Your task to perform on an android device: Go to notification settings Image 0: 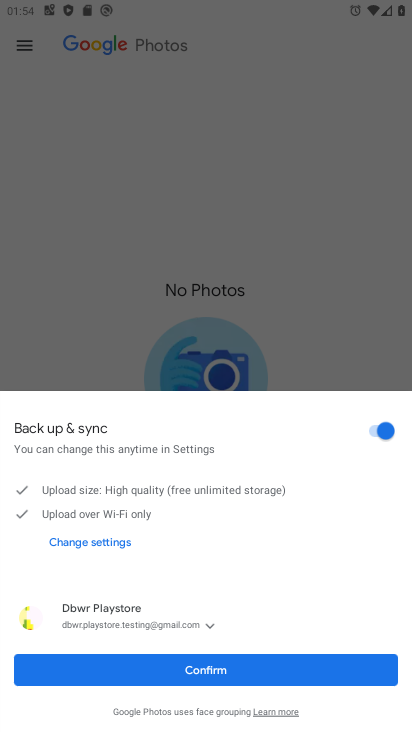
Step 0: press home button
Your task to perform on an android device: Go to notification settings Image 1: 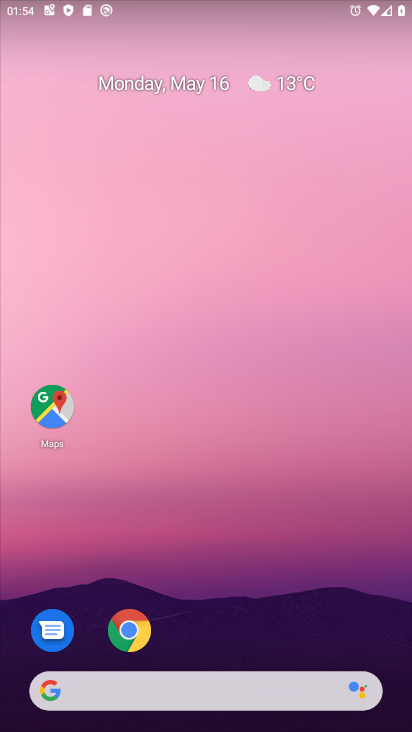
Step 1: drag from (251, 493) to (320, 144)
Your task to perform on an android device: Go to notification settings Image 2: 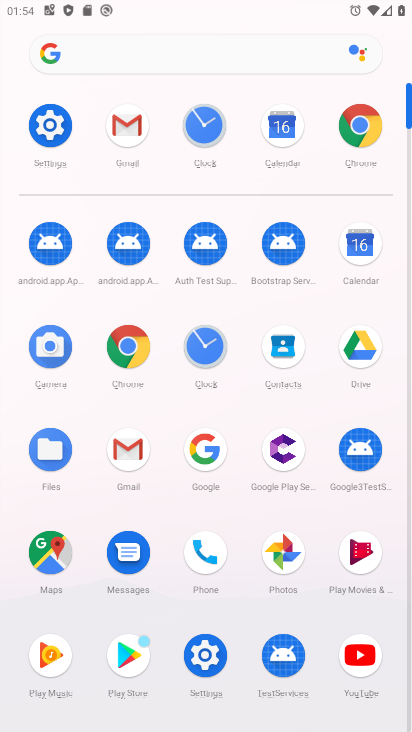
Step 2: click (58, 123)
Your task to perform on an android device: Go to notification settings Image 3: 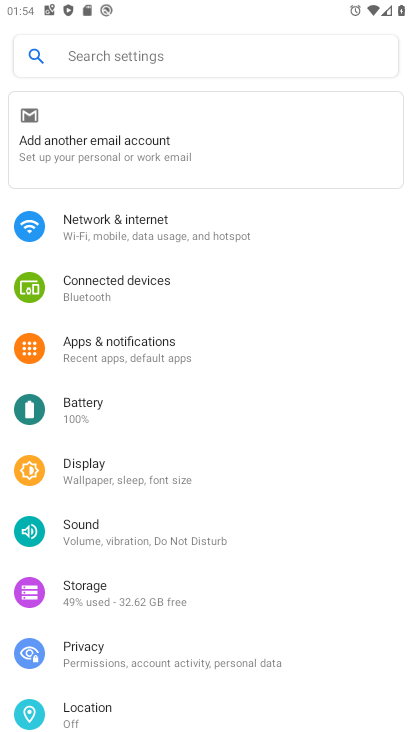
Step 3: click (127, 356)
Your task to perform on an android device: Go to notification settings Image 4: 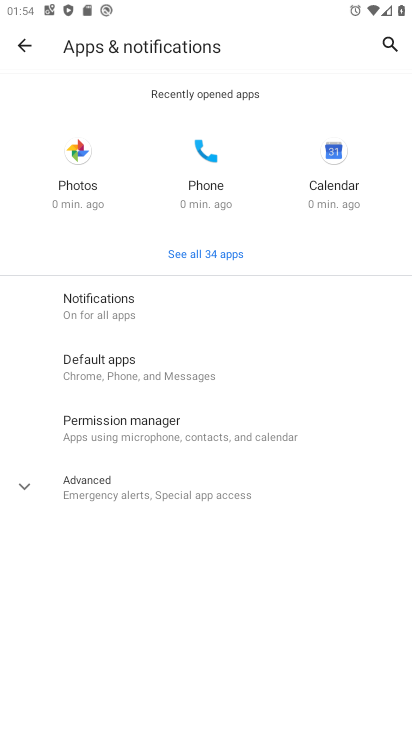
Step 4: task complete